Your task to perform on an android device: Open Youtube and go to the subscriptions tab Image 0: 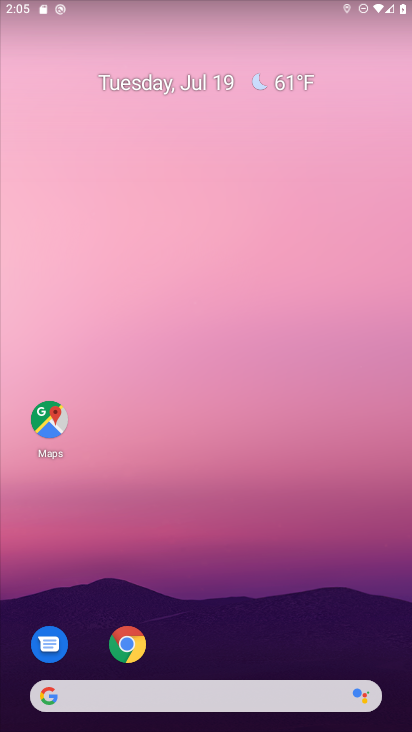
Step 0: click (156, 116)
Your task to perform on an android device: Open Youtube and go to the subscriptions tab Image 1: 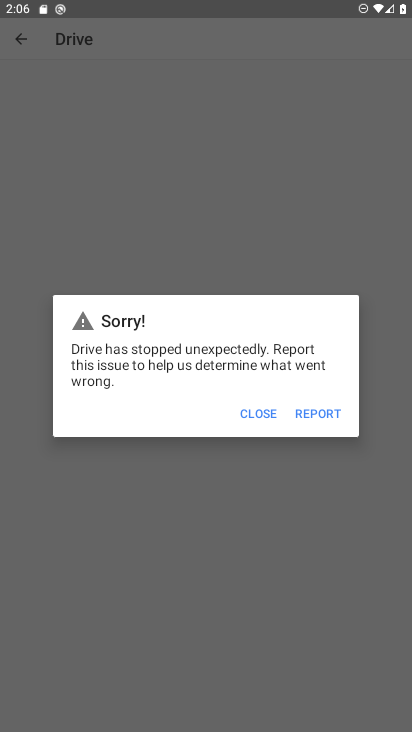
Step 1: press home button
Your task to perform on an android device: Open Youtube and go to the subscriptions tab Image 2: 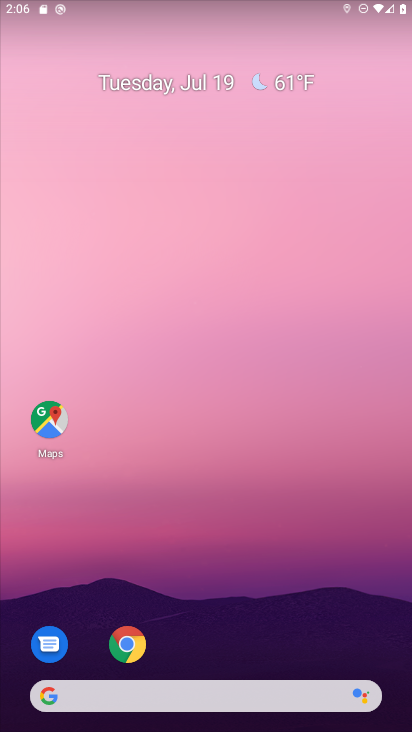
Step 2: drag from (187, 674) to (110, 149)
Your task to perform on an android device: Open Youtube and go to the subscriptions tab Image 3: 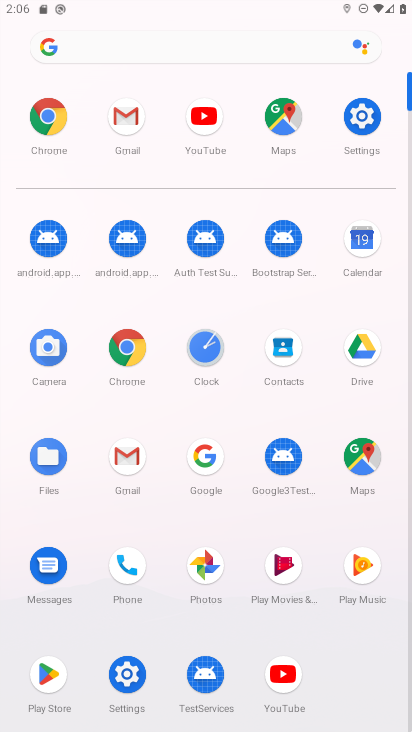
Step 3: click (284, 652)
Your task to perform on an android device: Open Youtube and go to the subscriptions tab Image 4: 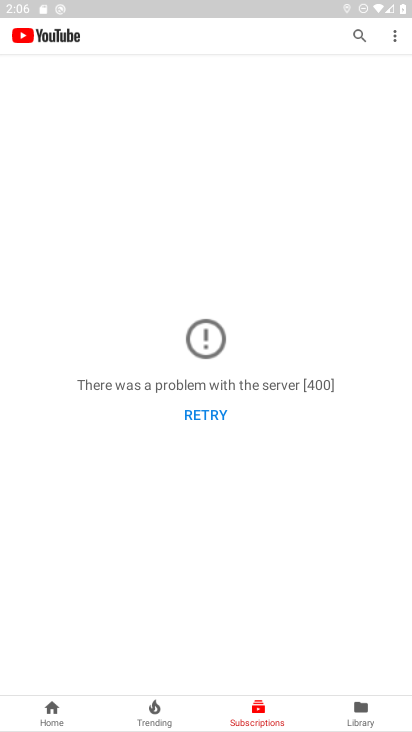
Step 4: task complete